Your task to perform on an android device: When is my next appointment? Image 0: 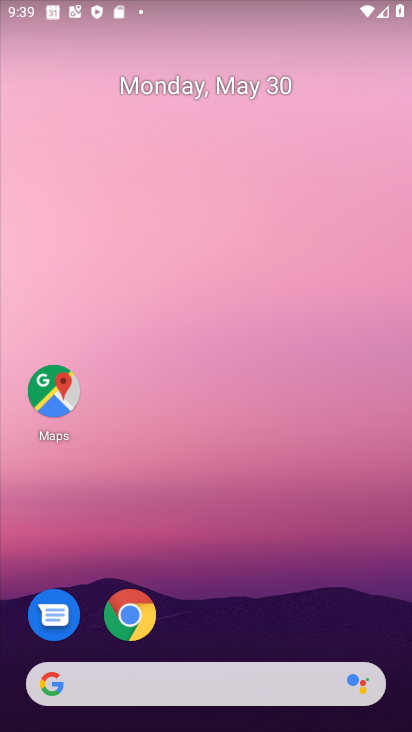
Step 0: drag from (251, 475) to (173, 11)
Your task to perform on an android device: When is my next appointment? Image 1: 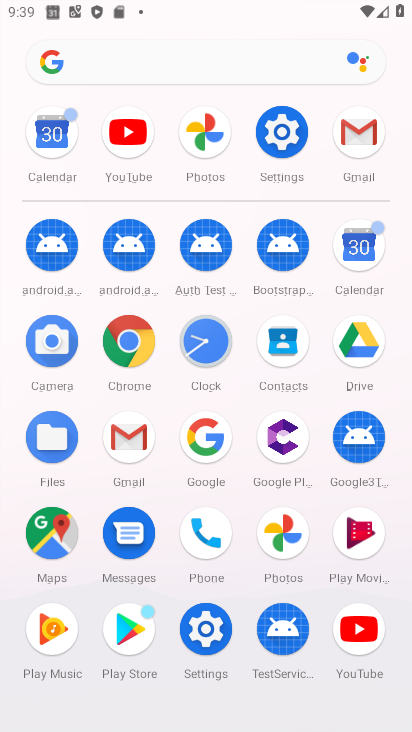
Step 1: click (346, 255)
Your task to perform on an android device: When is my next appointment? Image 2: 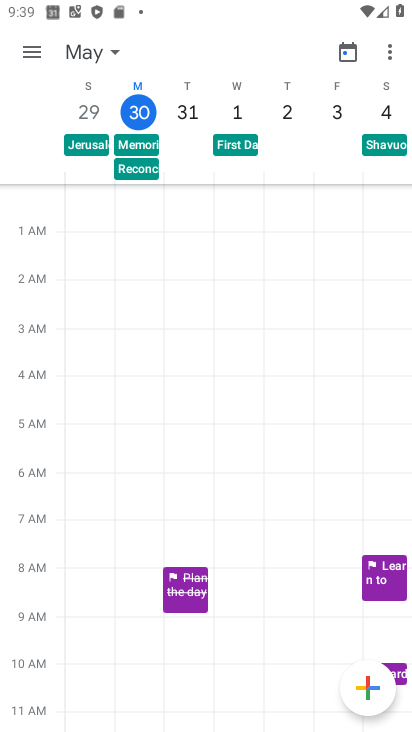
Step 2: task complete